Your task to perform on an android device: change timer sound Image 0: 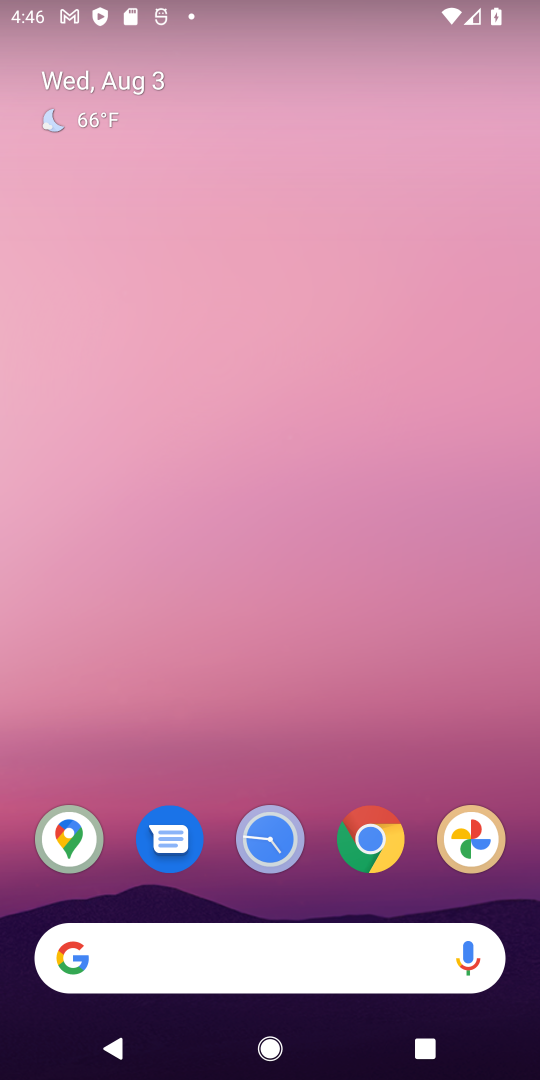
Step 0: click (269, 849)
Your task to perform on an android device: change timer sound Image 1: 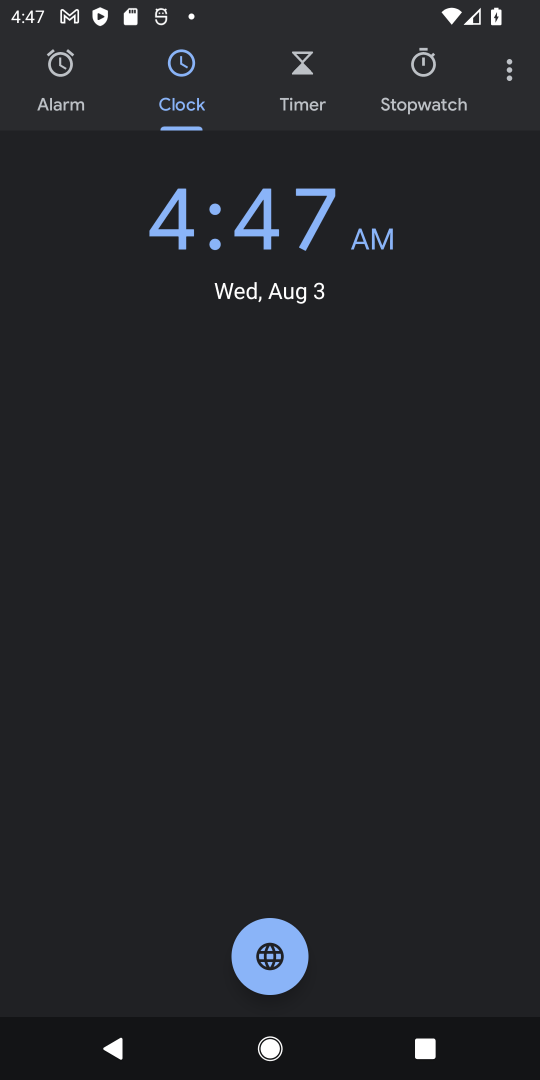
Step 1: click (516, 60)
Your task to perform on an android device: change timer sound Image 2: 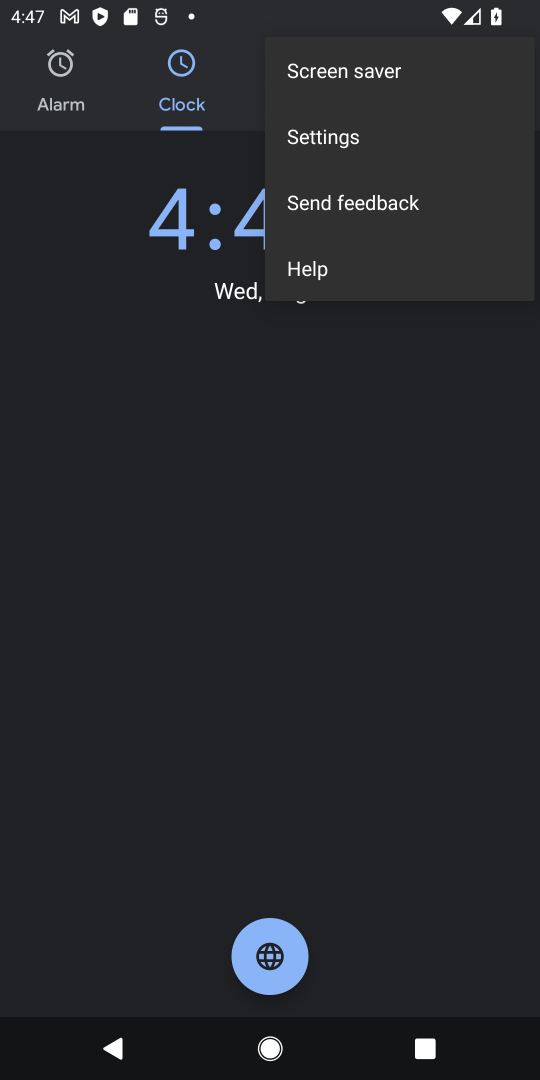
Step 2: click (356, 131)
Your task to perform on an android device: change timer sound Image 3: 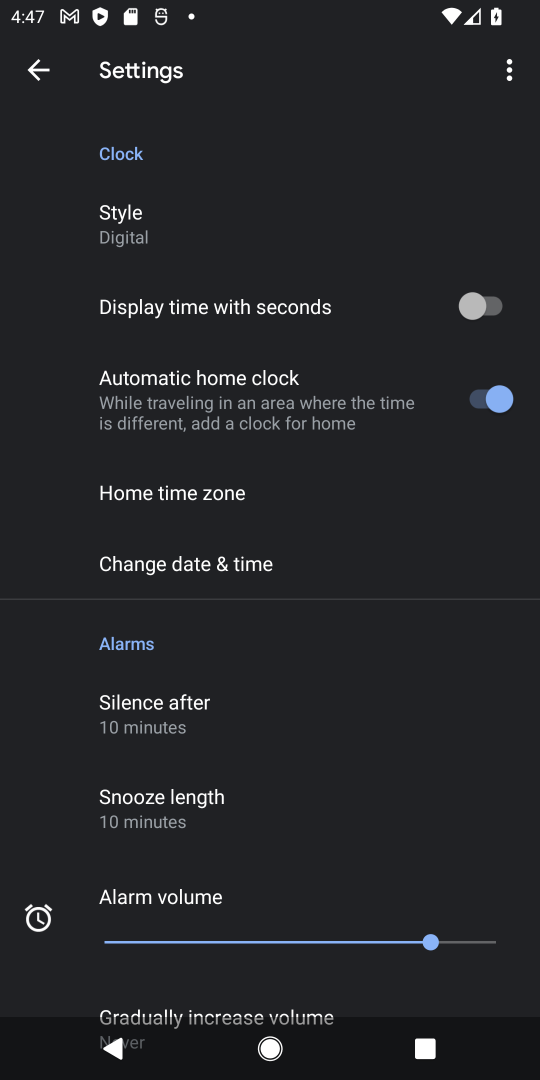
Step 3: drag from (207, 772) to (318, 144)
Your task to perform on an android device: change timer sound Image 4: 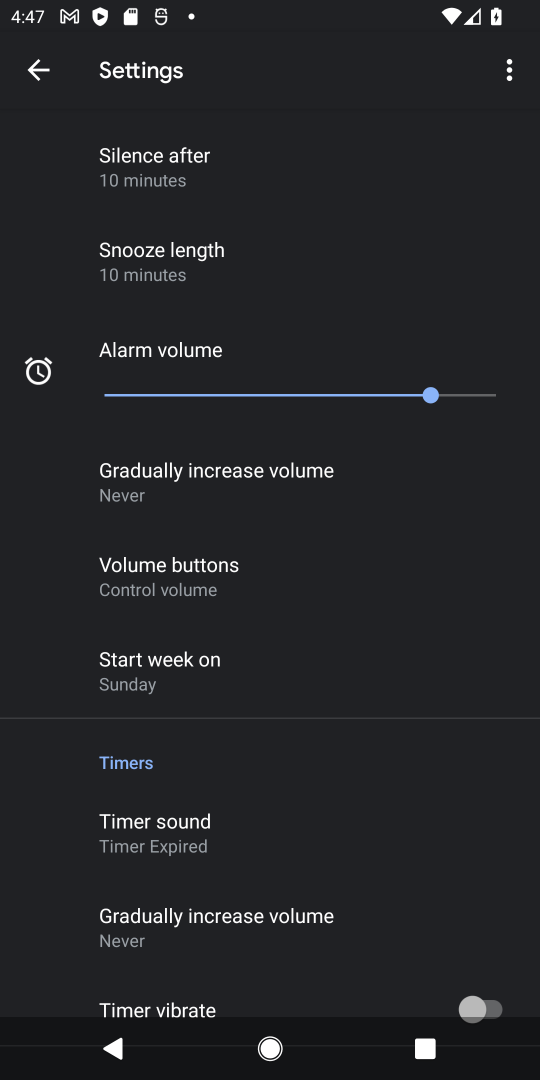
Step 4: click (213, 838)
Your task to perform on an android device: change timer sound Image 5: 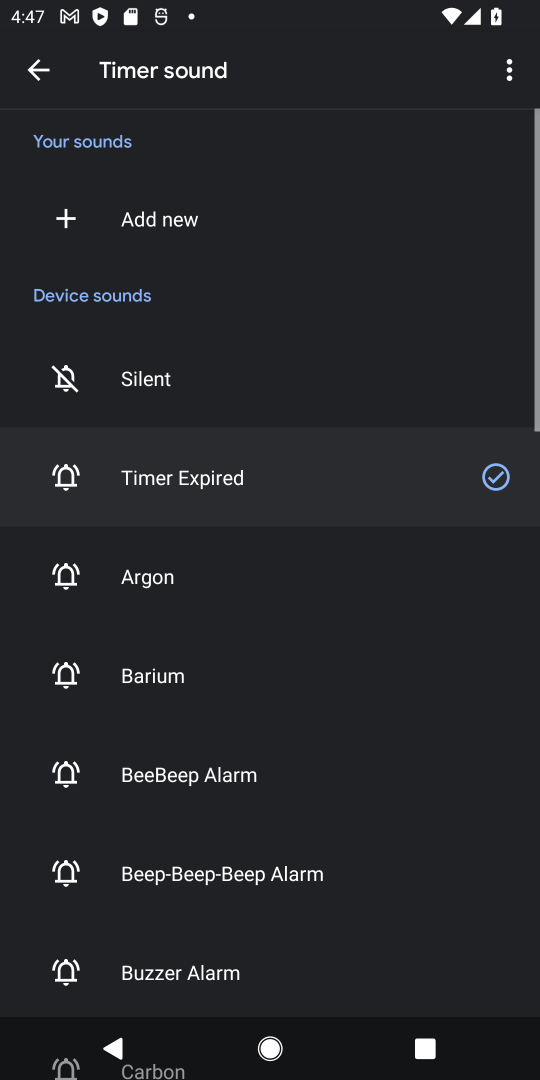
Step 5: click (161, 603)
Your task to perform on an android device: change timer sound Image 6: 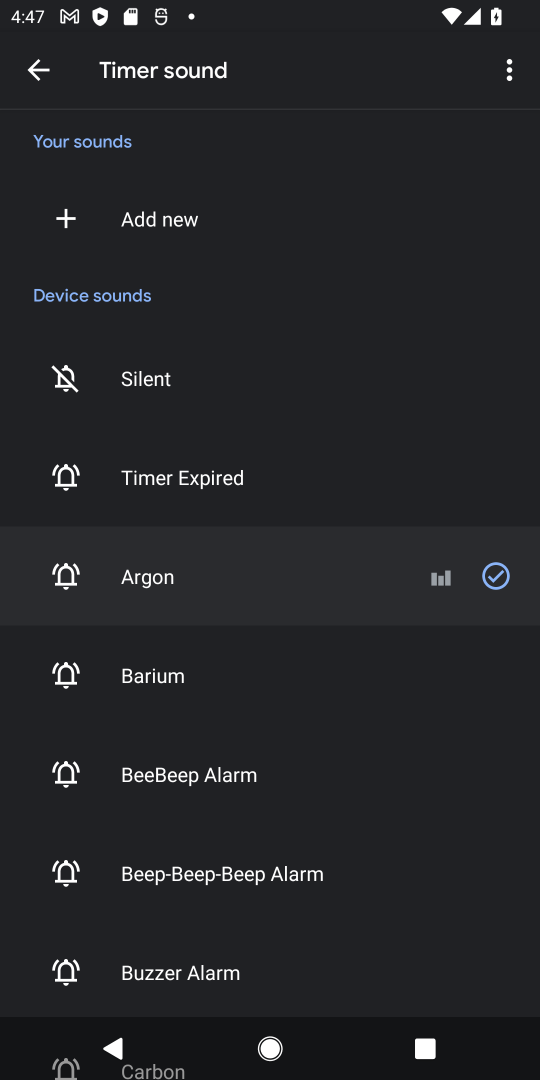
Step 6: task complete